Your task to perform on an android device: Is it going to rain tomorrow? Image 0: 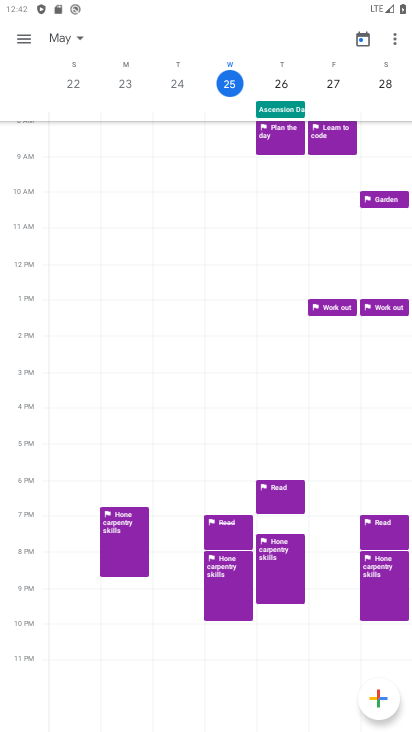
Step 0: press home button
Your task to perform on an android device: Is it going to rain tomorrow? Image 1: 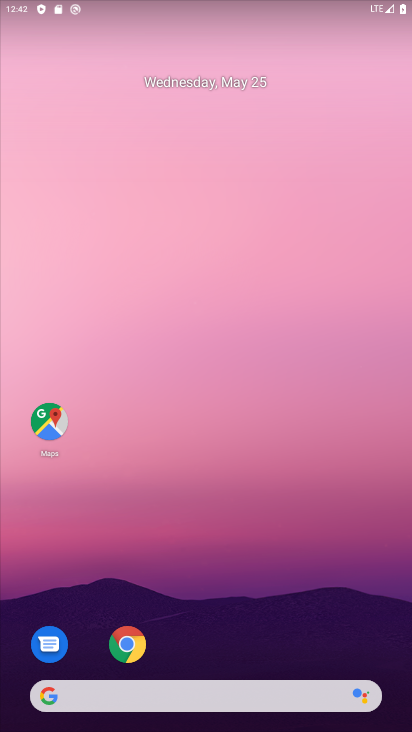
Step 1: click (214, 687)
Your task to perform on an android device: Is it going to rain tomorrow? Image 2: 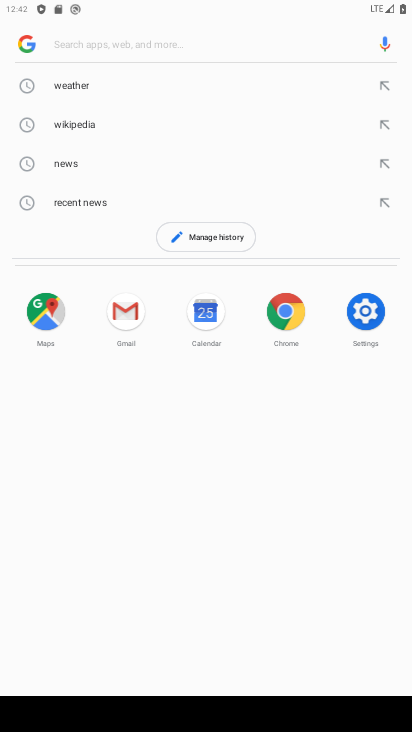
Step 2: click (73, 81)
Your task to perform on an android device: Is it going to rain tomorrow? Image 3: 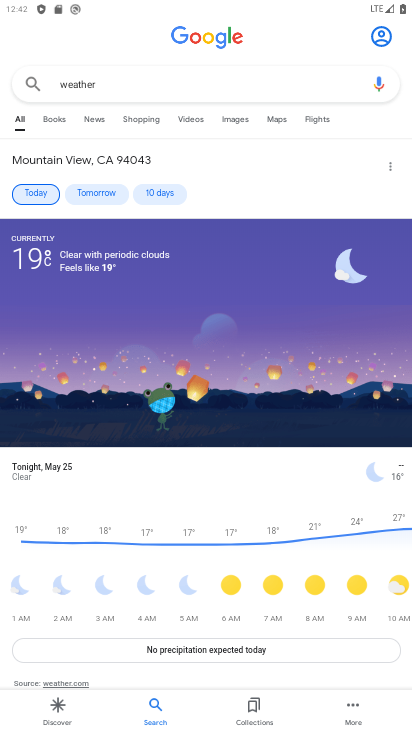
Step 3: task complete